Your task to perform on an android device: see tabs open on other devices in the chrome app Image 0: 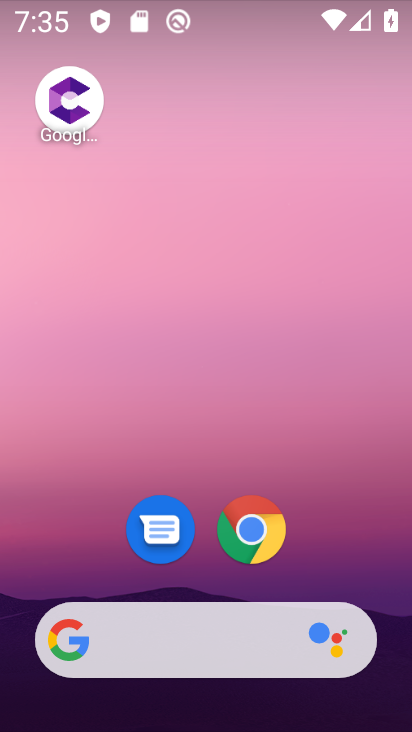
Step 0: click (241, 532)
Your task to perform on an android device: see tabs open on other devices in the chrome app Image 1: 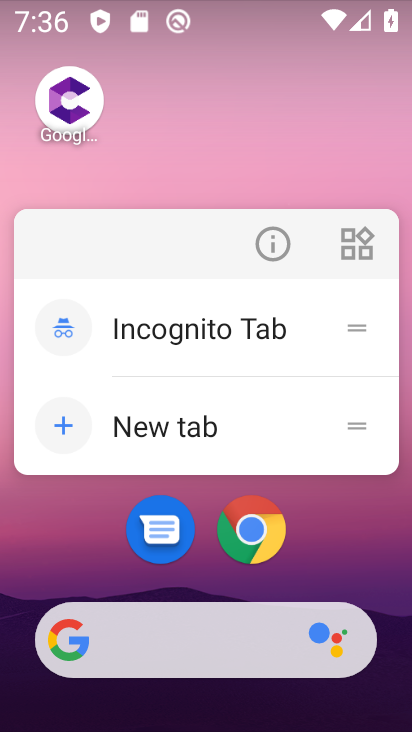
Step 1: click (256, 513)
Your task to perform on an android device: see tabs open on other devices in the chrome app Image 2: 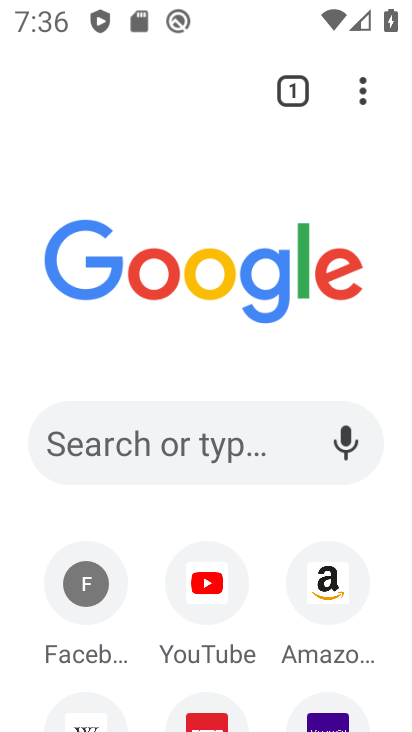
Step 2: click (353, 88)
Your task to perform on an android device: see tabs open on other devices in the chrome app Image 3: 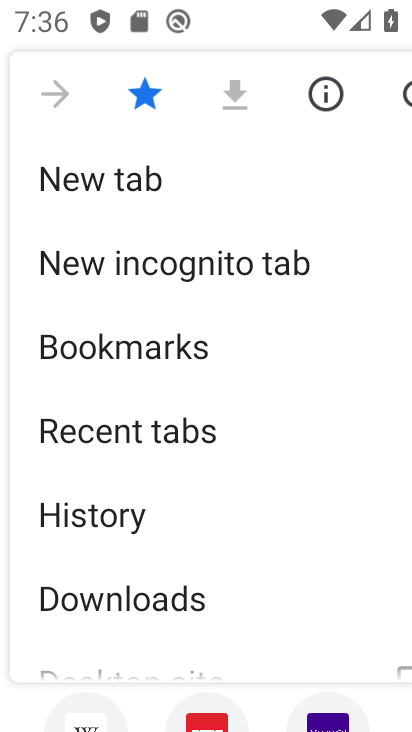
Step 3: click (93, 423)
Your task to perform on an android device: see tabs open on other devices in the chrome app Image 4: 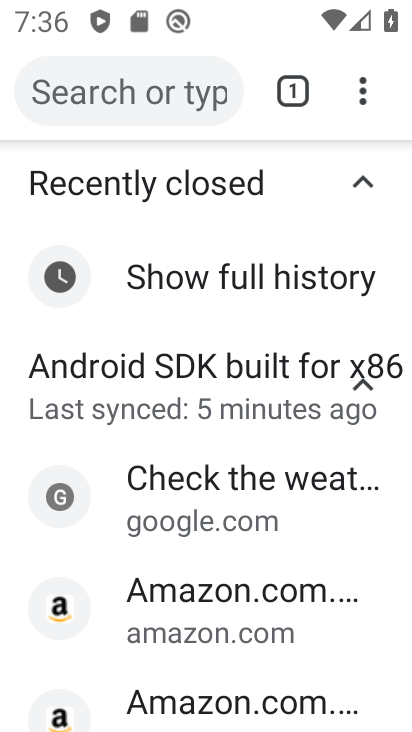
Step 4: task complete